Your task to perform on an android device: find which apps use the phone's location Image 0: 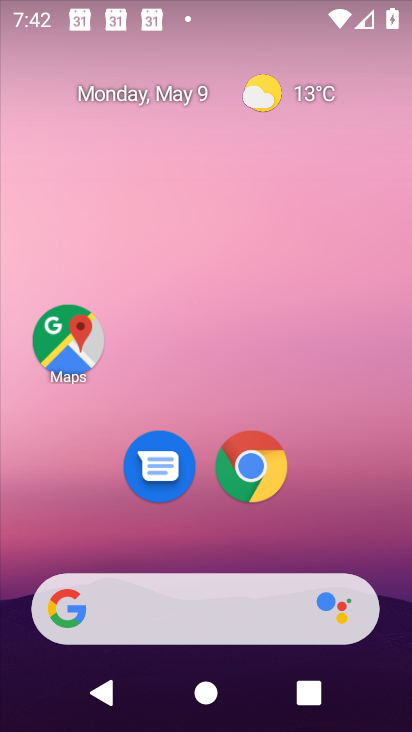
Step 0: drag from (349, 287) to (349, 152)
Your task to perform on an android device: find which apps use the phone's location Image 1: 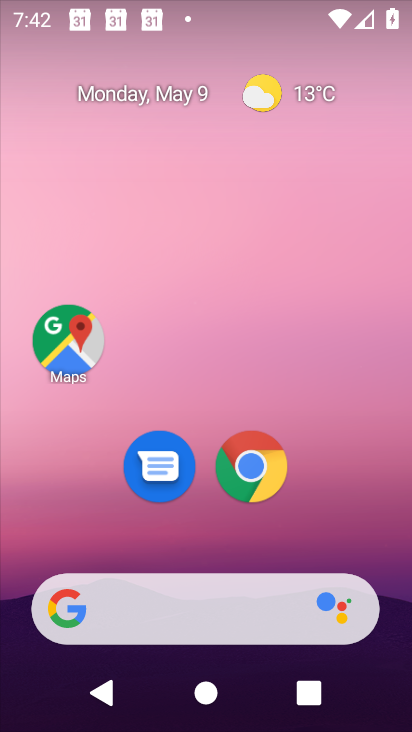
Step 1: drag from (300, 520) to (355, 189)
Your task to perform on an android device: find which apps use the phone's location Image 2: 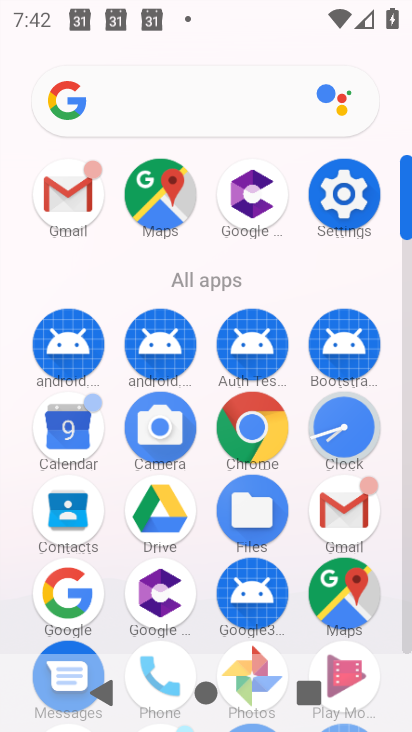
Step 2: click (343, 196)
Your task to perform on an android device: find which apps use the phone's location Image 3: 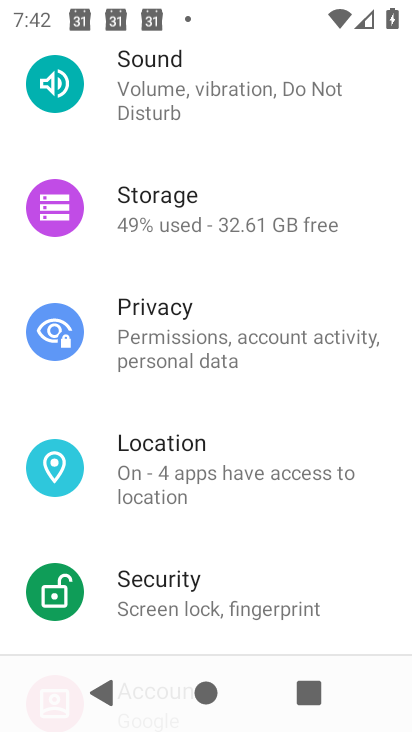
Step 3: click (213, 480)
Your task to perform on an android device: find which apps use the phone's location Image 4: 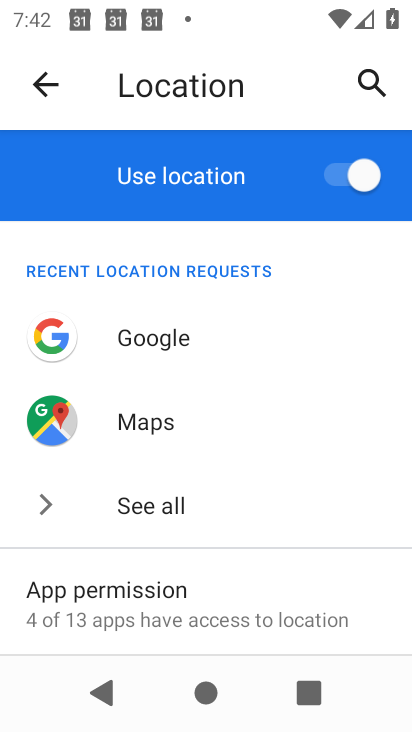
Step 4: task complete